Your task to perform on an android device: turn off location history Image 0: 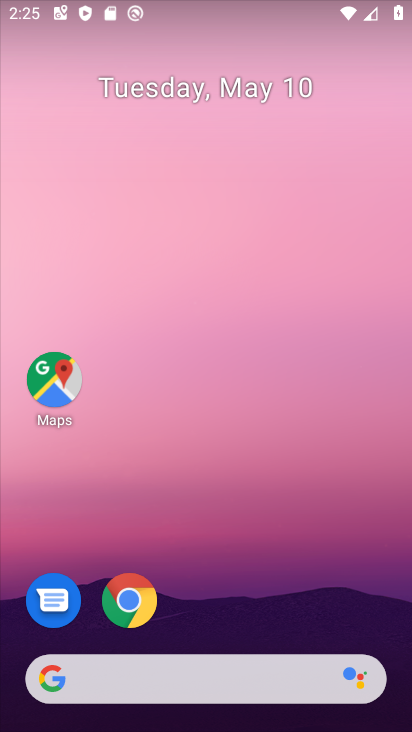
Step 0: drag from (271, 616) to (274, 176)
Your task to perform on an android device: turn off location history Image 1: 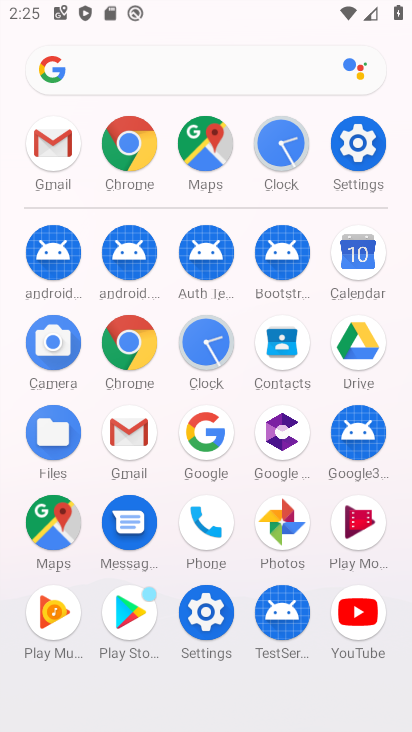
Step 1: click (355, 183)
Your task to perform on an android device: turn off location history Image 2: 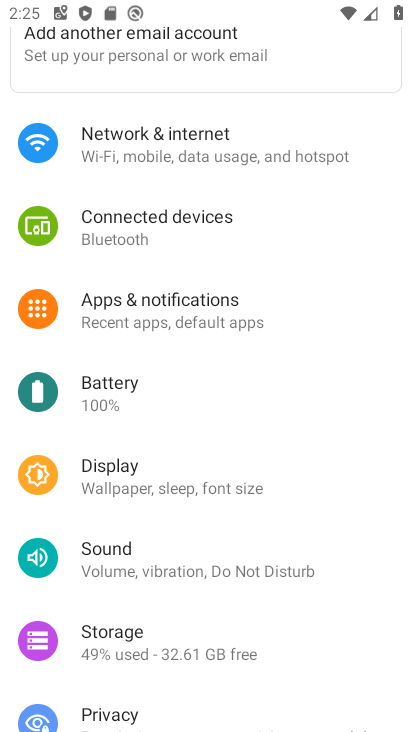
Step 2: drag from (207, 563) to (209, 264)
Your task to perform on an android device: turn off location history Image 3: 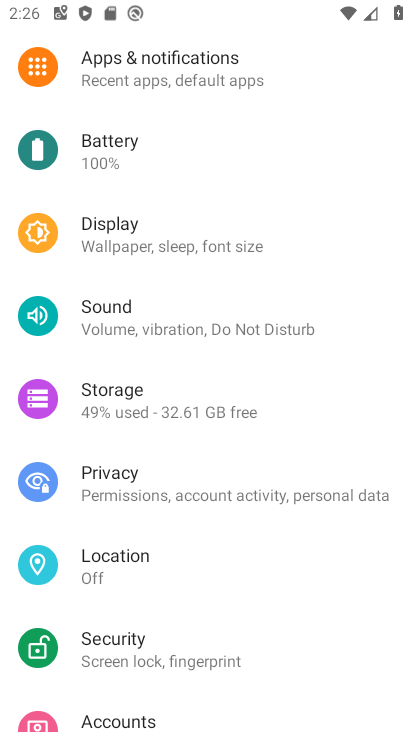
Step 3: drag from (168, 628) to (168, 533)
Your task to perform on an android device: turn off location history Image 4: 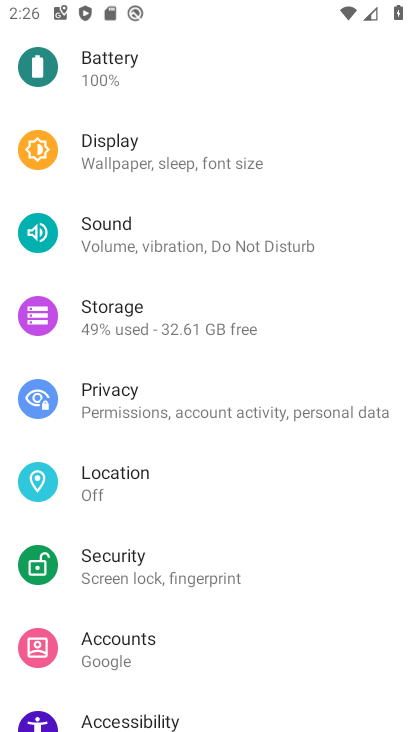
Step 4: click (167, 496)
Your task to perform on an android device: turn off location history Image 5: 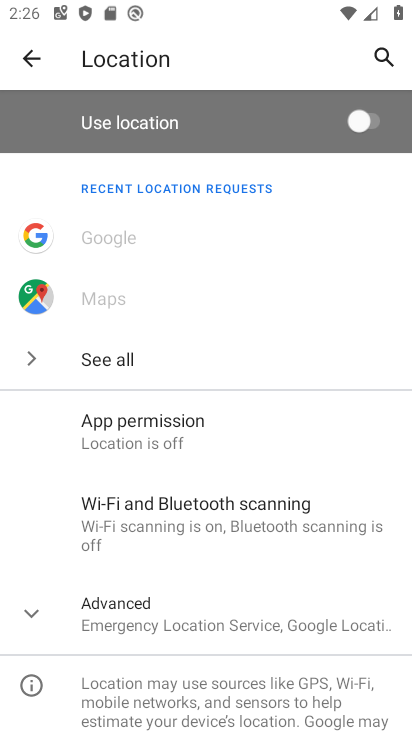
Step 5: drag from (150, 575) to (148, 466)
Your task to perform on an android device: turn off location history Image 6: 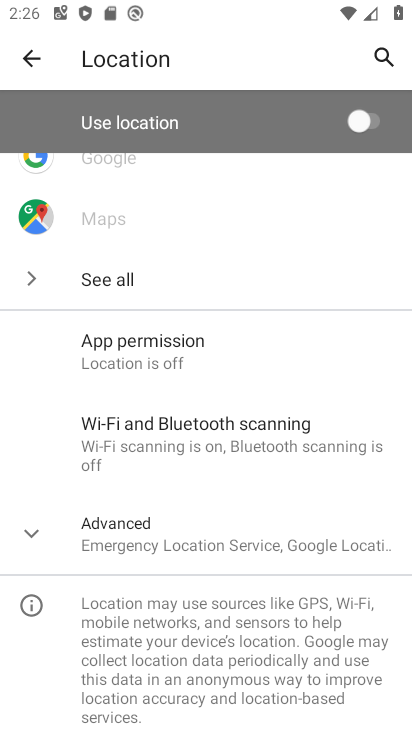
Step 6: click (124, 536)
Your task to perform on an android device: turn off location history Image 7: 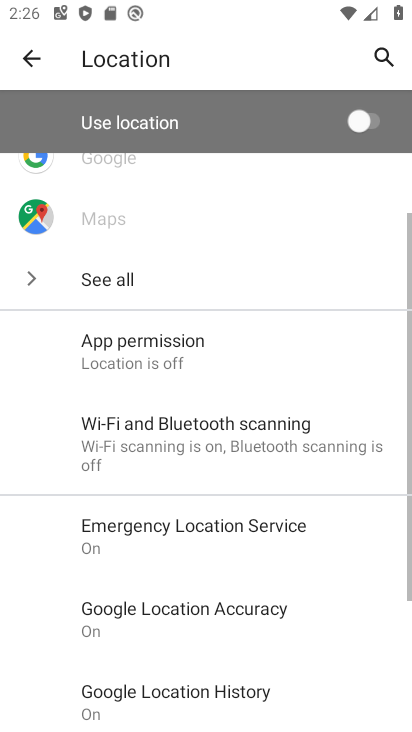
Step 7: drag from (185, 605) to (210, 433)
Your task to perform on an android device: turn off location history Image 8: 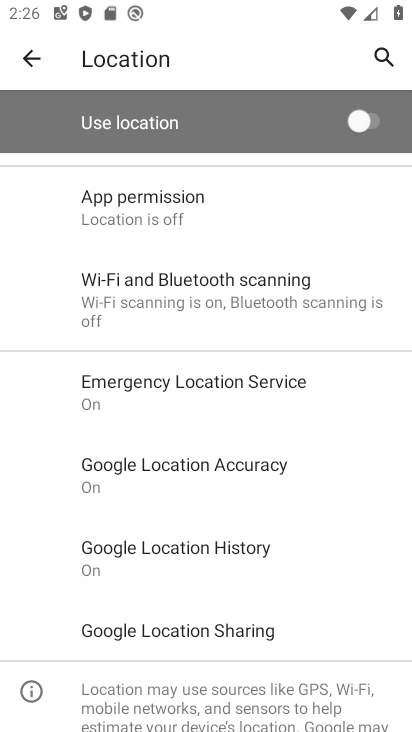
Step 8: click (238, 558)
Your task to perform on an android device: turn off location history Image 9: 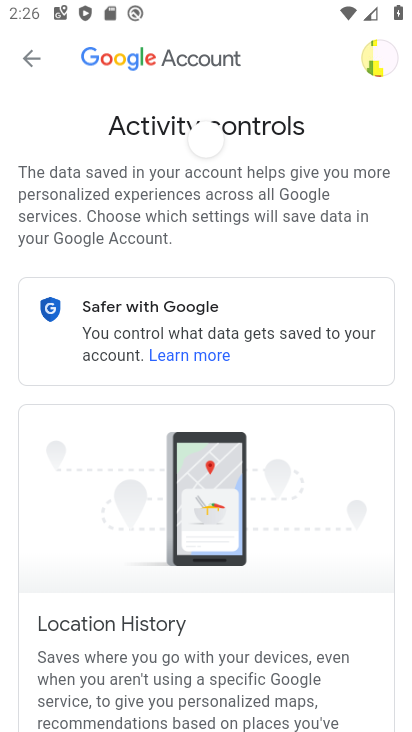
Step 9: drag from (214, 547) to (208, 217)
Your task to perform on an android device: turn off location history Image 10: 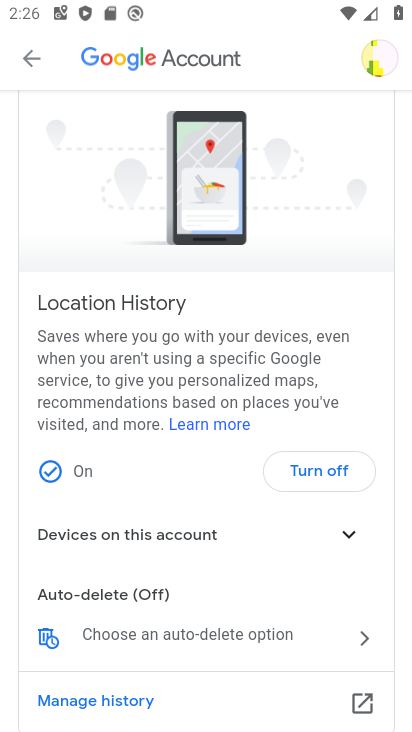
Step 10: drag from (215, 517) to (197, 404)
Your task to perform on an android device: turn off location history Image 11: 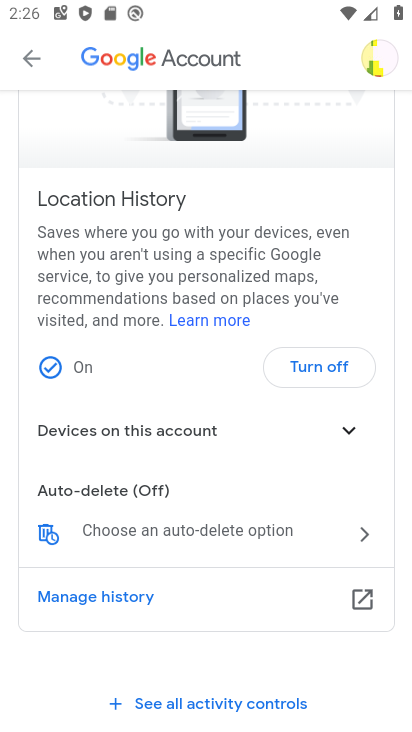
Step 11: click (338, 373)
Your task to perform on an android device: turn off location history Image 12: 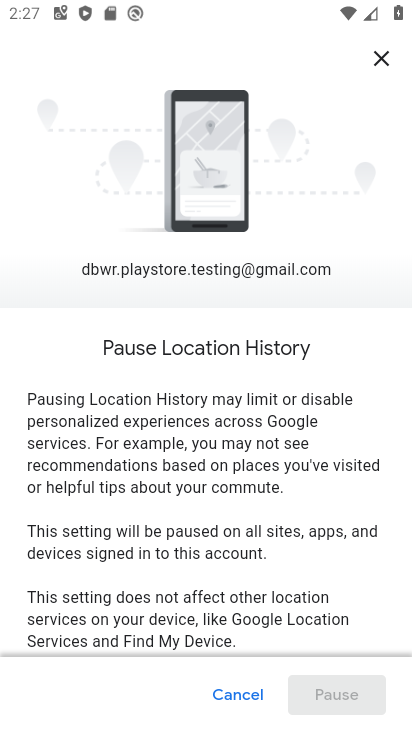
Step 12: drag from (203, 504) to (253, 67)
Your task to perform on an android device: turn off location history Image 13: 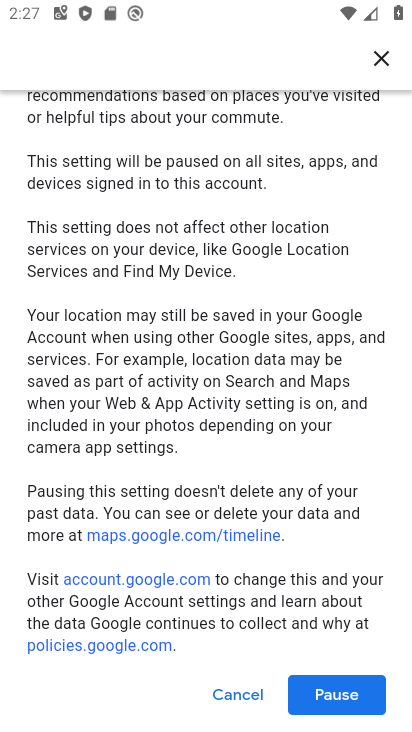
Step 13: click (355, 709)
Your task to perform on an android device: turn off location history Image 14: 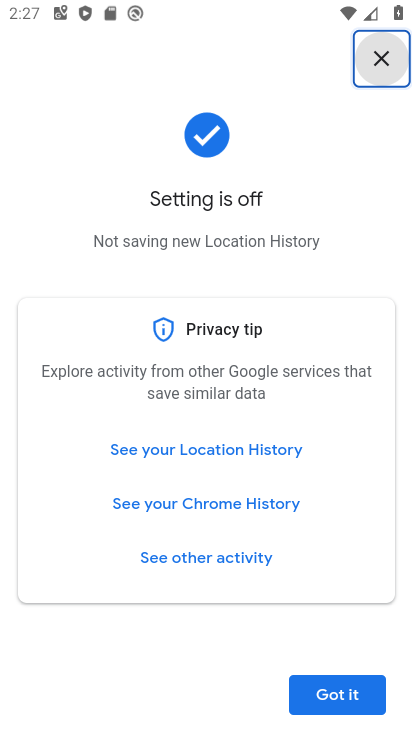
Step 14: click (335, 700)
Your task to perform on an android device: turn off location history Image 15: 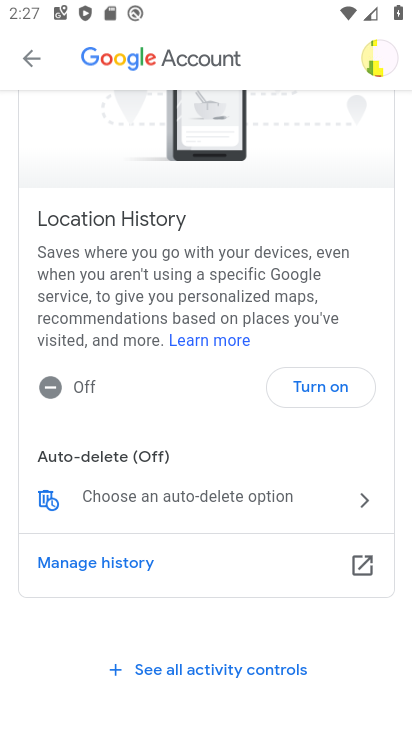
Step 15: task complete